Your task to perform on an android device: toggle translation in the chrome app Image 0: 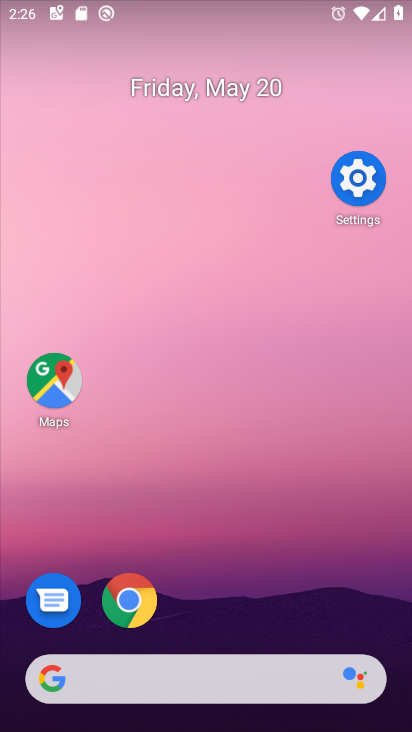
Step 0: click (131, 602)
Your task to perform on an android device: toggle translation in the chrome app Image 1: 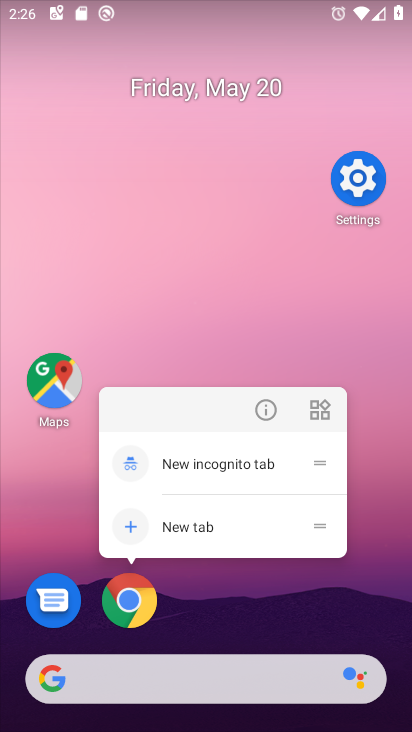
Step 1: click (124, 600)
Your task to perform on an android device: toggle translation in the chrome app Image 2: 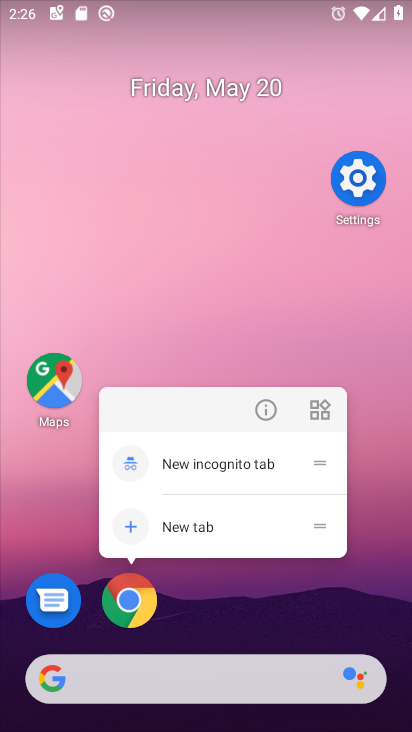
Step 2: click (124, 600)
Your task to perform on an android device: toggle translation in the chrome app Image 3: 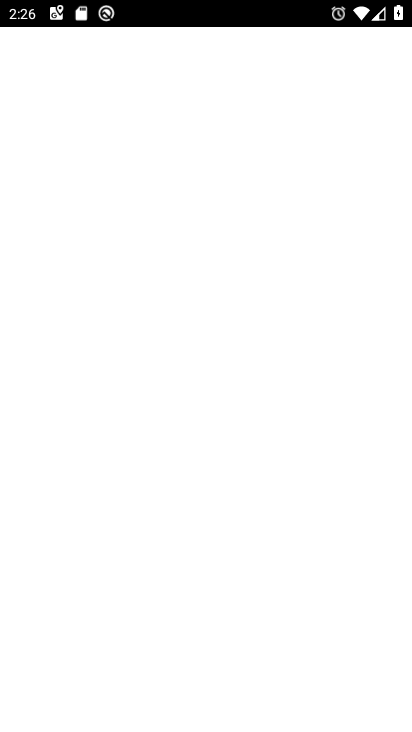
Step 3: click (124, 600)
Your task to perform on an android device: toggle translation in the chrome app Image 4: 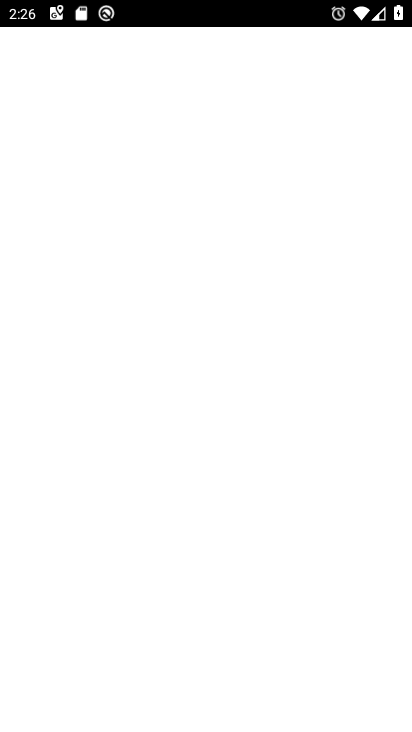
Step 4: click (124, 600)
Your task to perform on an android device: toggle translation in the chrome app Image 5: 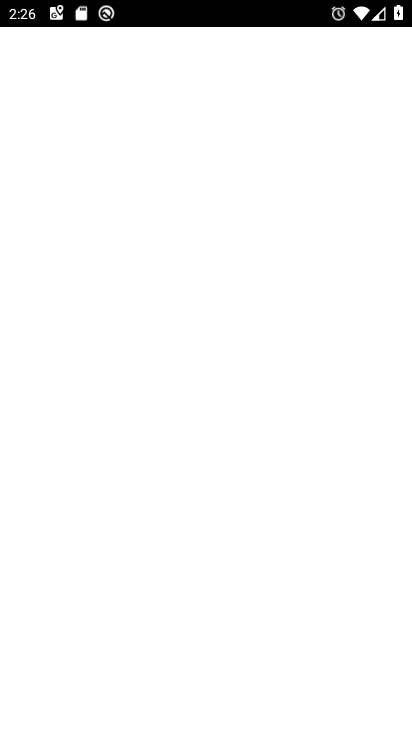
Step 5: click (124, 600)
Your task to perform on an android device: toggle translation in the chrome app Image 6: 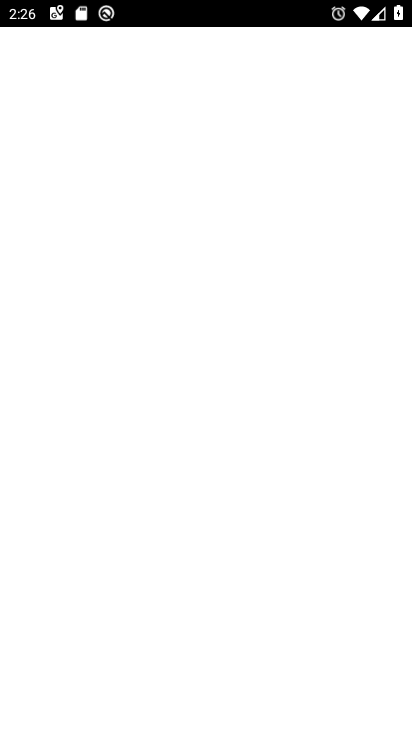
Step 6: click (124, 600)
Your task to perform on an android device: toggle translation in the chrome app Image 7: 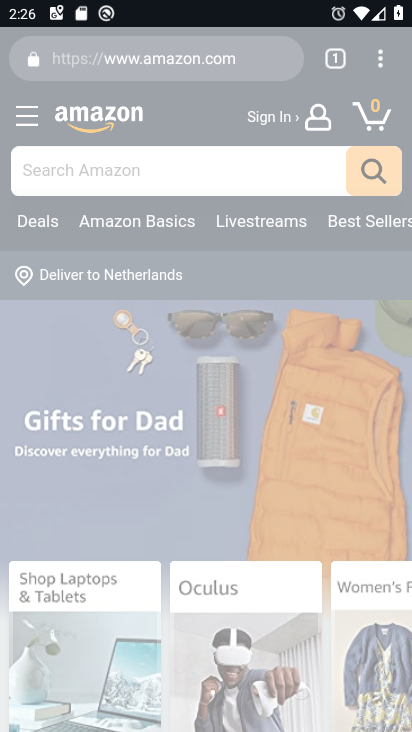
Step 7: click (124, 600)
Your task to perform on an android device: toggle translation in the chrome app Image 8: 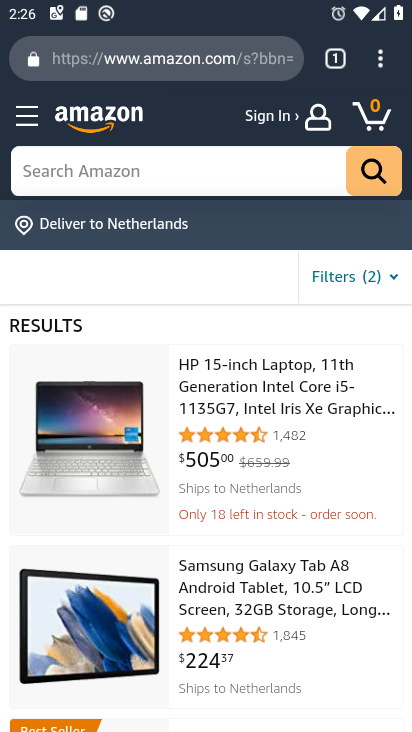
Step 8: click (376, 53)
Your task to perform on an android device: toggle translation in the chrome app Image 9: 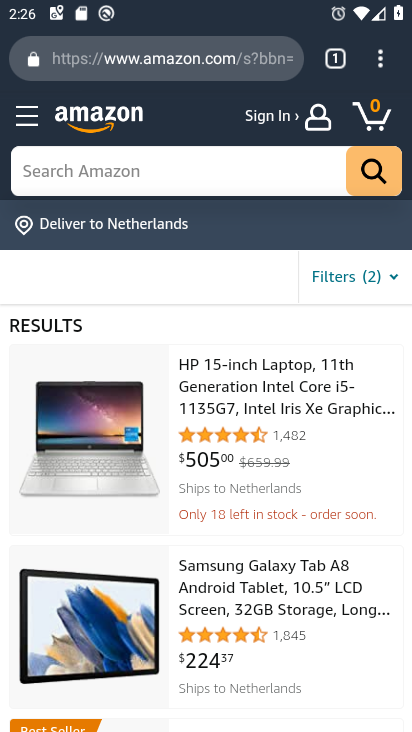
Step 9: click (368, 64)
Your task to perform on an android device: toggle translation in the chrome app Image 10: 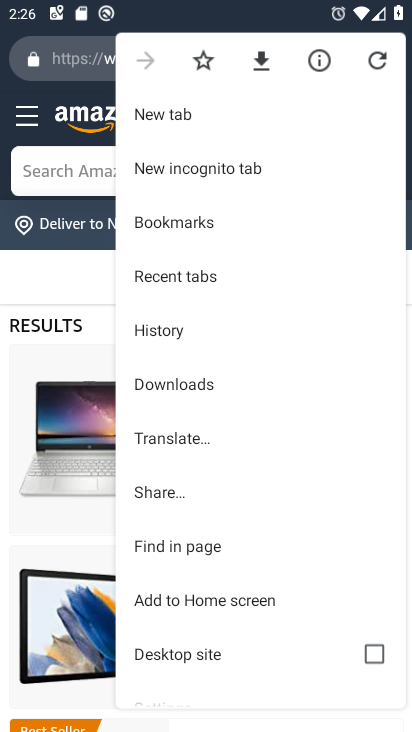
Step 10: drag from (201, 593) to (288, 242)
Your task to perform on an android device: toggle translation in the chrome app Image 11: 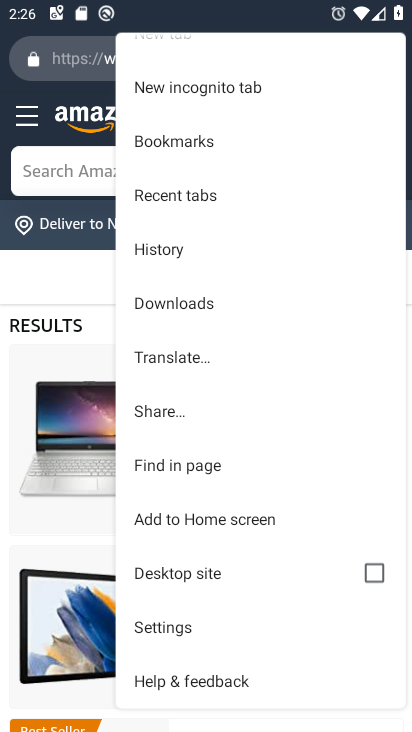
Step 11: click (183, 627)
Your task to perform on an android device: toggle translation in the chrome app Image 12: 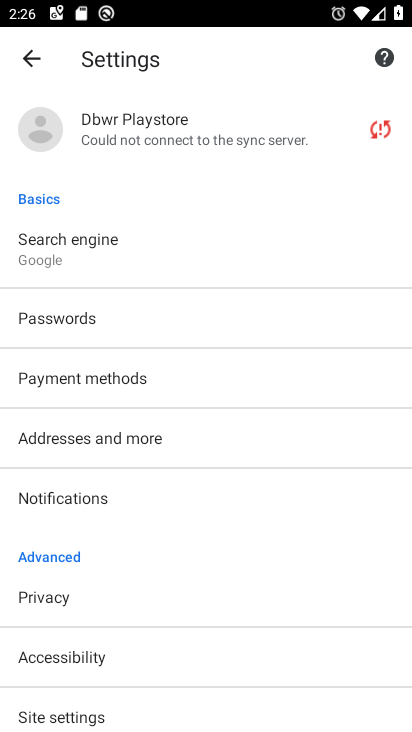
Step 12: drag from (74, 617) to (93, 376)
Your task to perform on an android device: toggle translation in the chrome app Image 13: 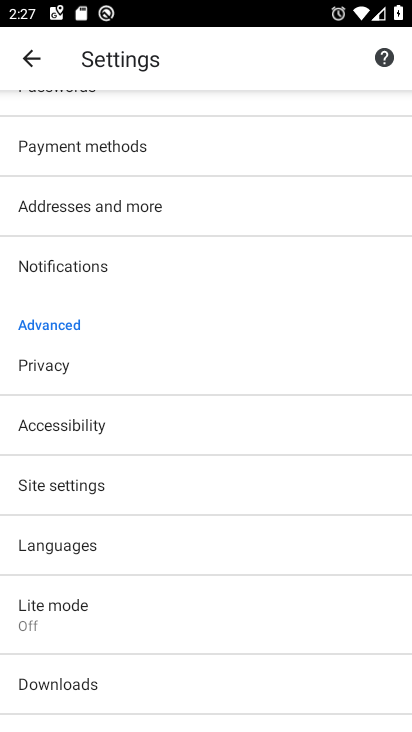
Step 13: click (88, 557)
Your task to perform on an android device: toggle translation in the chrome app Image 14: 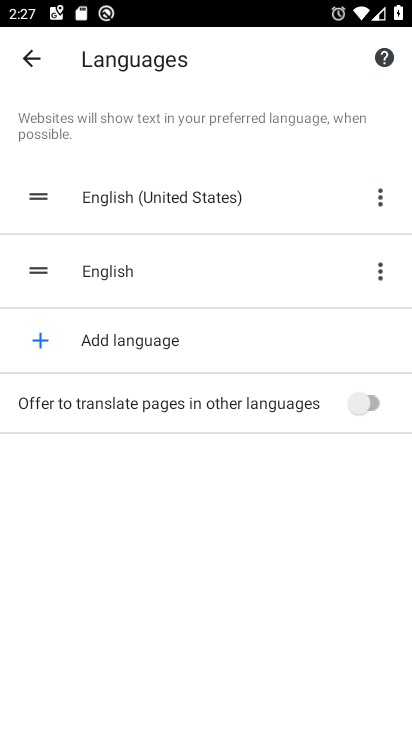
Step 14: click (339, 407)
Your task to perform on an android device: toggle translation in the chrome app Image 15: 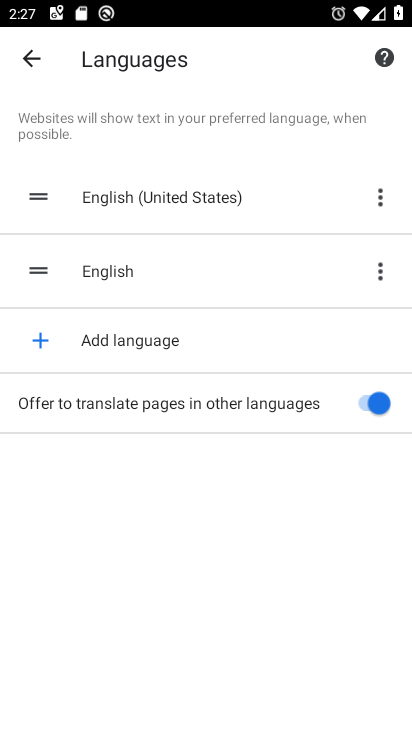
Step 15: task complete